Your task to perform on an android device: Open Google Maps Image 0: 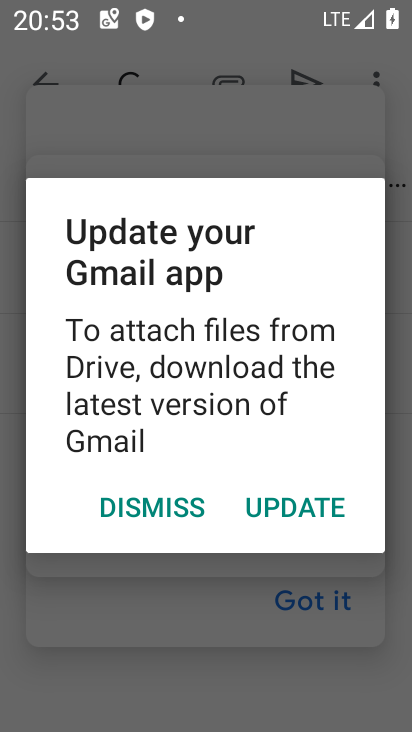
Step 0: press home button
Your task to perform on an android device: Open Google Maps Image 1: 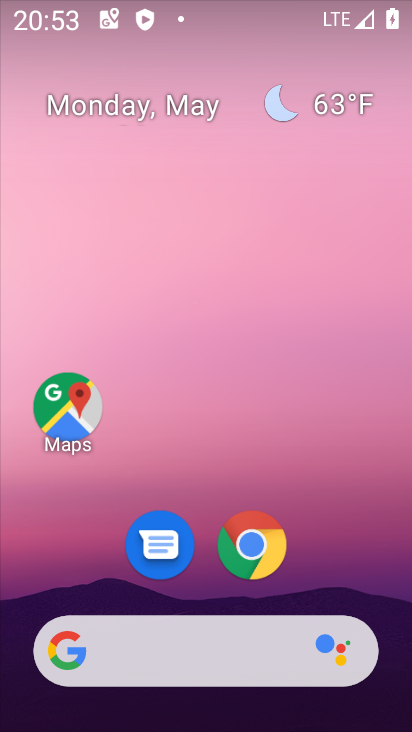
Step 1: click (83, 431)
Your task to perform on an android device: Open Google Maps Image 2: 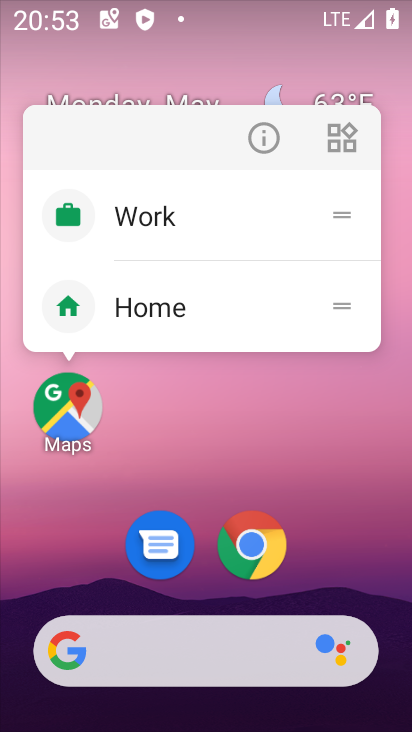
Step 2: click (83, 431)
Your task to perform on an android device: Open Google Maps Image 3: 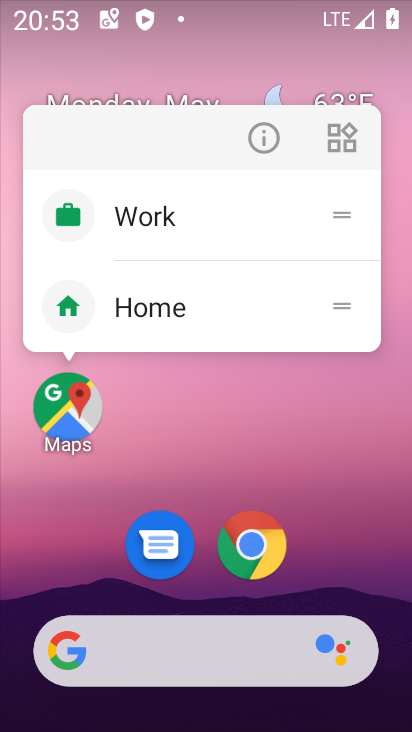
Step 3: click (83, 431)
Your task to perform on an android device: Open Google Maps Image 4: 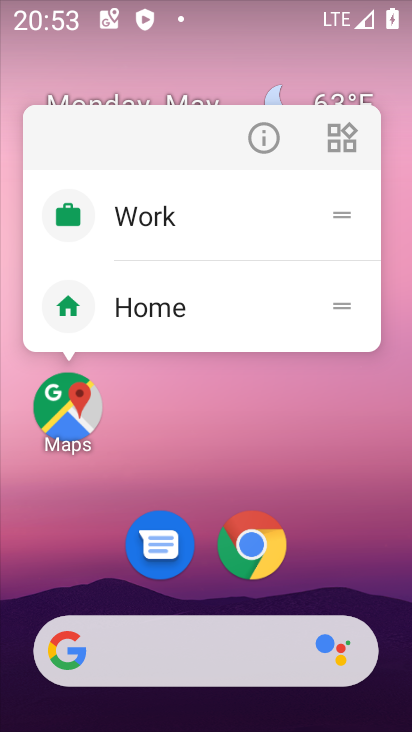
Step 4: click (83, 431)
Your task to perform on an android device: Open Google Maps Image 5: 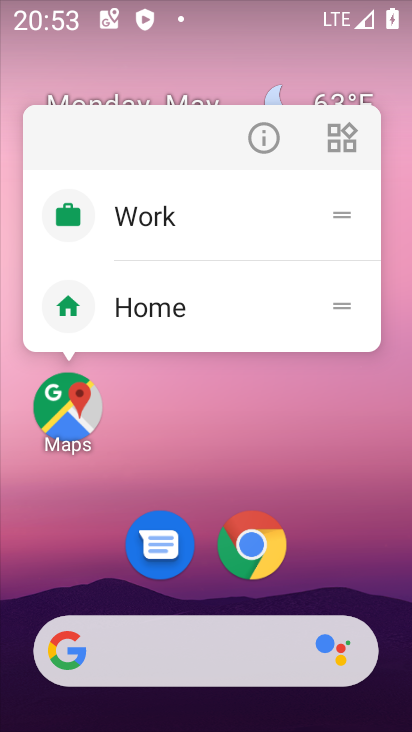
Step 5: click (83, 431)
Your task to perform on an android device: Open Google Maps Image 6: 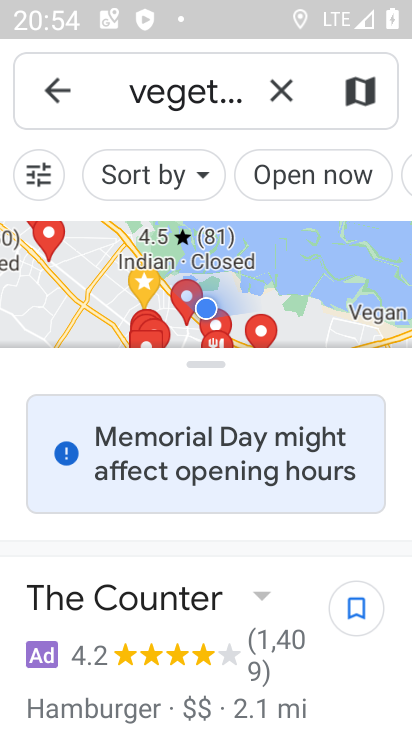
Step 6: task complete